Your task to perform on an android device: change the upload size in google photos Image 0: 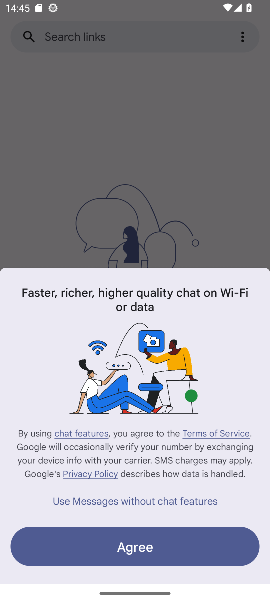
Step 0: press home button
Your task to perform on an android device: change the upload size in google photos Image 1: 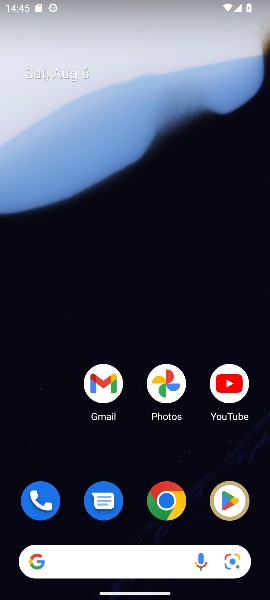
Step 1: click (160, 386)
Your task to perform on an android device: change the upload size in google photos Image 2: 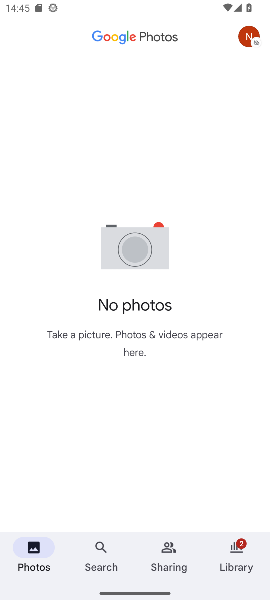
Step 2: click (255, 44)
Your task to perform on an android device: change the upload size in google photos Image 3: 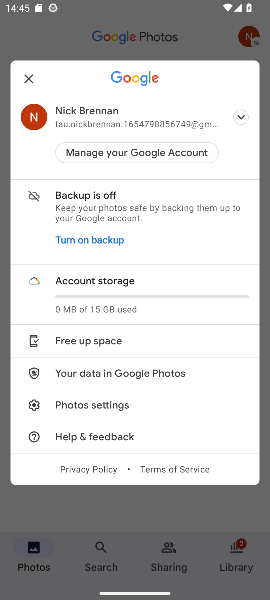
Step 3: click (94, 401)
Your task to perform on an android device: change the upload size in google photos Image 4: 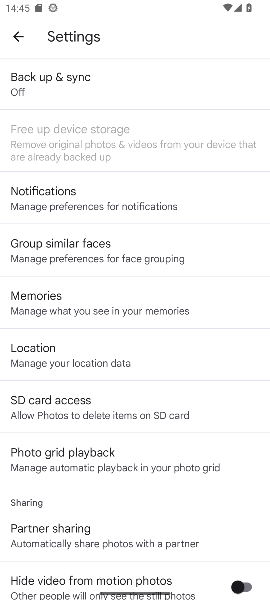
Step 4: click (55, 68)
Your task to perform on an android device: change the upload size in google photos Image 5: 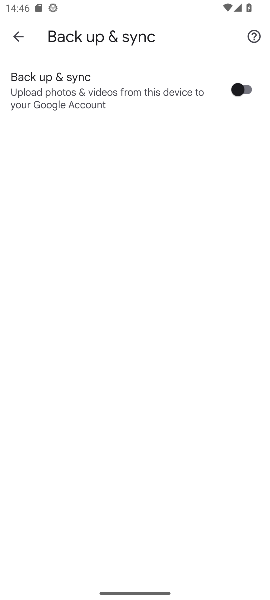
Step 5: click (16, 34)
Your task to perform on an android device: change the upload size in google photos Image 6: 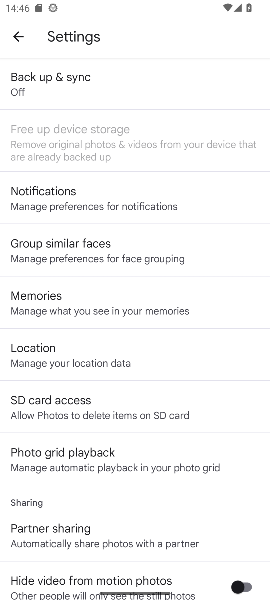
Step 6: task complete